Your task to perform on an android device: toggle pop-ups in chrome Image 0: 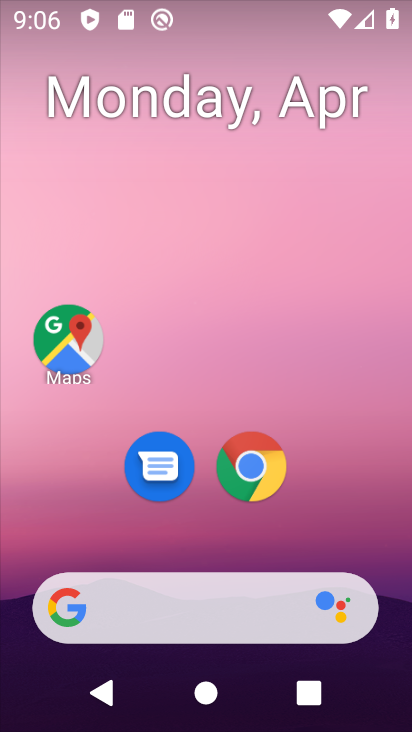
Step 0: click (254, 466)
Your task to perform on an android device: toggle pop-ups in chrome Image 1: 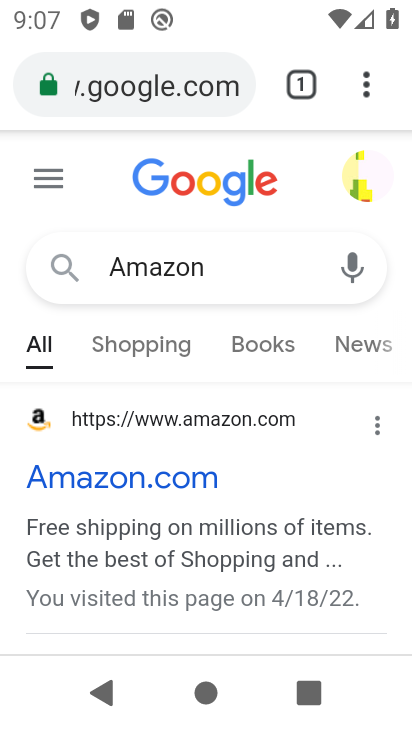
Step 1: click (368, 85)
Your task to perform on an android device: toggle pop-ups in chrome Image 2: 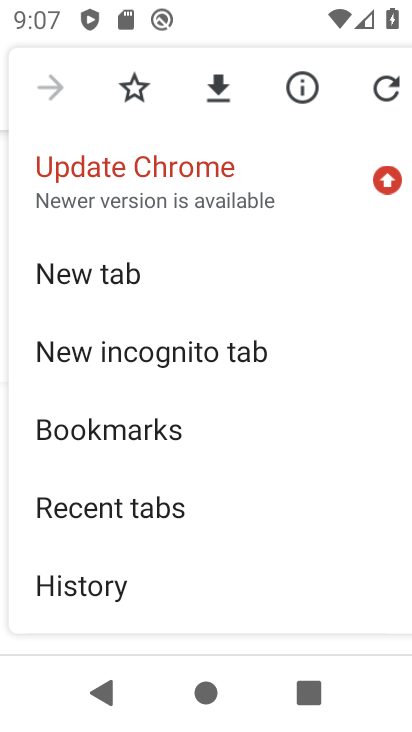
Step 2: drag from (210, 501) to (233, 431)
Your task to perform on an android device: toggle pop-ups in chrome Image 3: 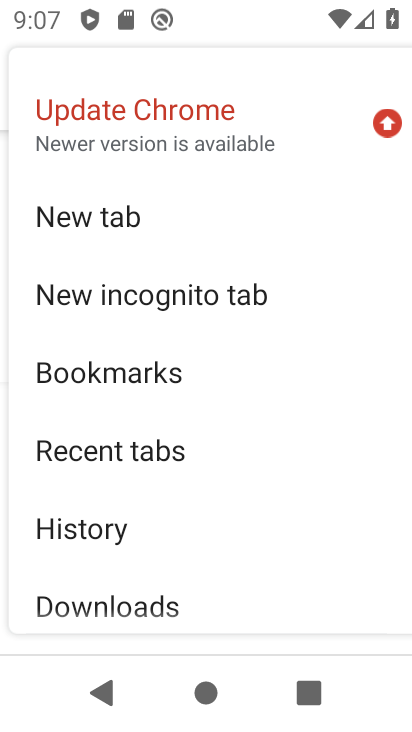
Step 3: drag from (208, 523) to (231, 437)
Your task to perform on an android device: toggle pop-ups in chrome Image 4: 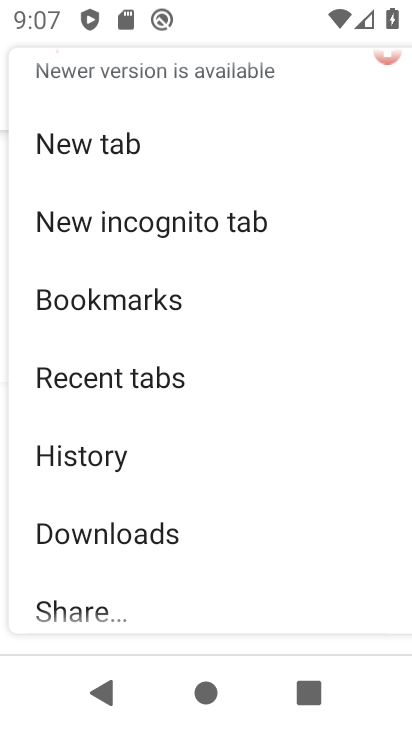
Step 4: drag from (208, 536) to (235, 438)
Your task to perform on an android device: toggle pop-ups in chrome Image 5: 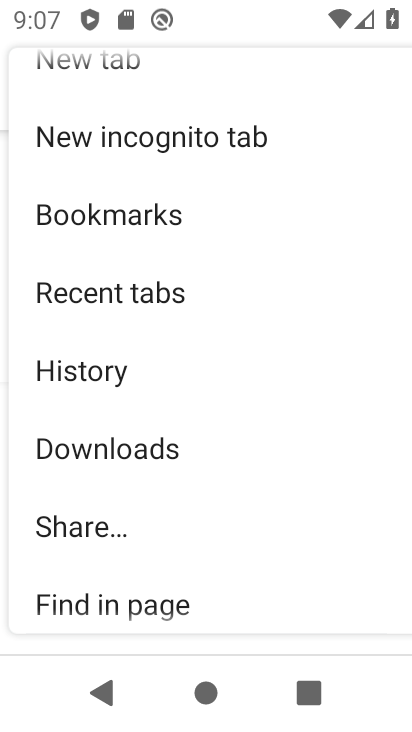
Step 5: drag from (200, 505) to (226, 437)
Your task to perform on an android device: toggle pop-ups in chrome Image 6: 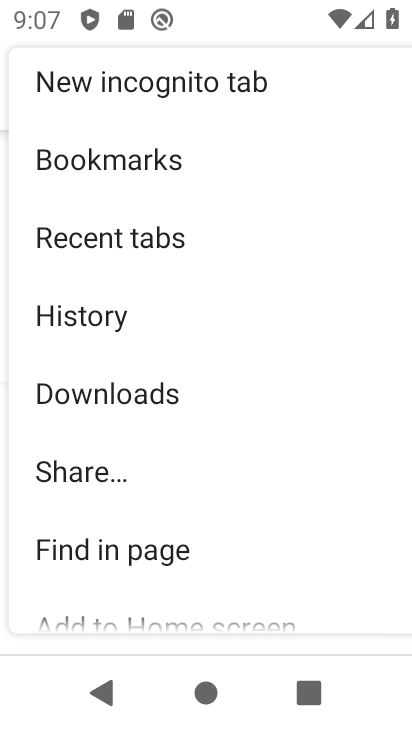
Step 6: drag from (215, 508) to (252, 439)
Your task to perform on an android device: toggle pop-ups in chrome Image 7: 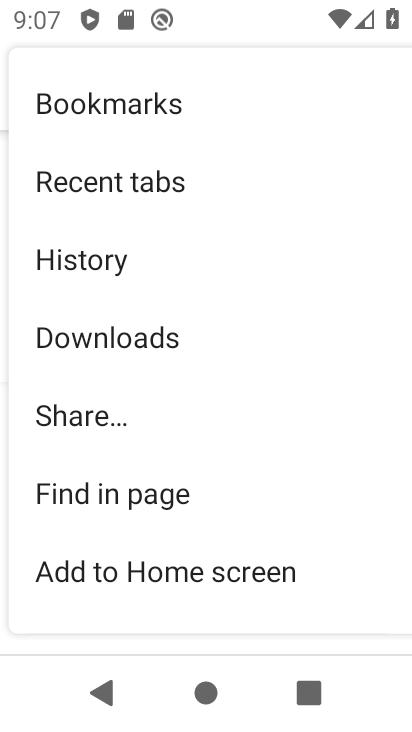
Step 7: drag from (233, 555) to (282, 428)
Your task to perform on an android device: toggle pop-ups in chrome Image 8: 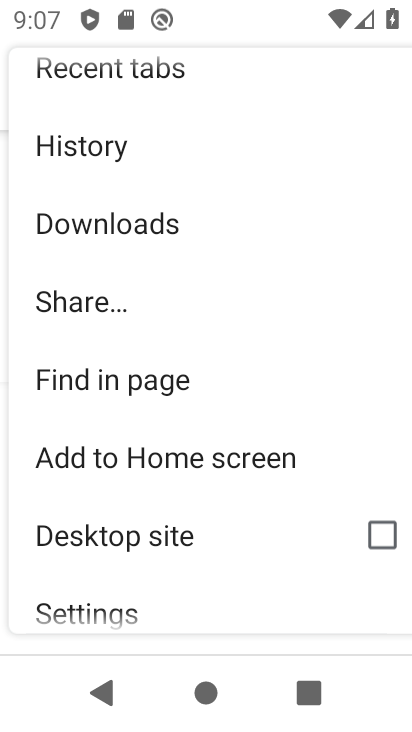
Step 8: drag from (232, 559) to (283, 413)
Your task to perform on an android device: toggle pop-ups in chrome Image 9: 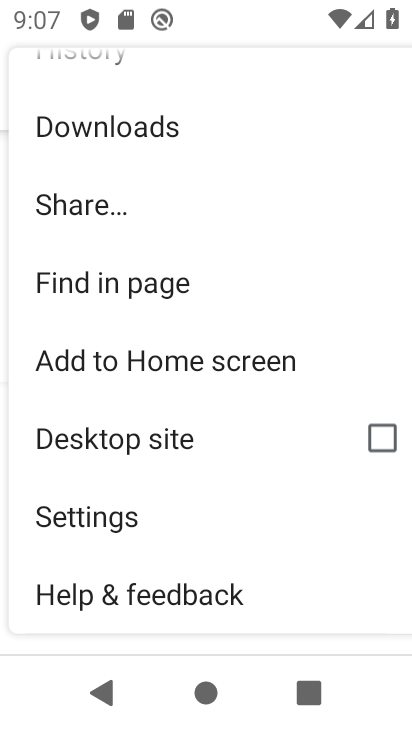
Step 9: click (77, 521)
Your task to perform on an android device: toggle pop-ups in chrome Image 10: 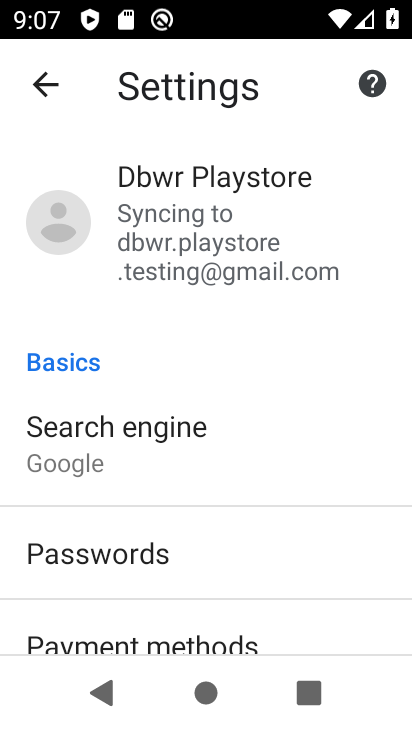
Step 10: drag from (136, 596) to (220, 411)
Your task to perform on an android device: toggle pop-ups in chrome Image 11: 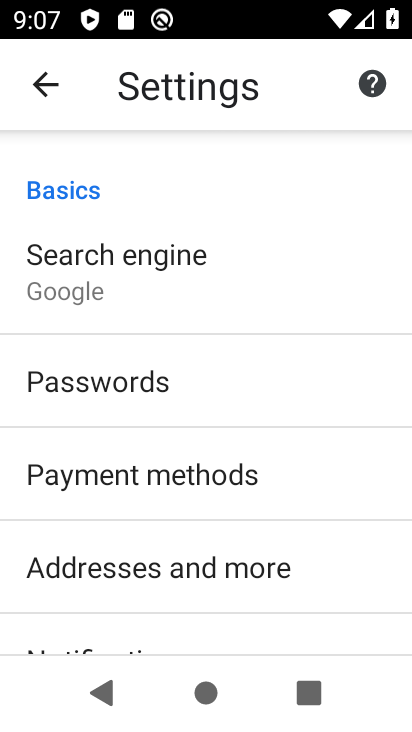
Step 11: drag from (177, 583) to (225, 471)
Your task to perform on an android device: toggle pop-ups in chrome Image 12: 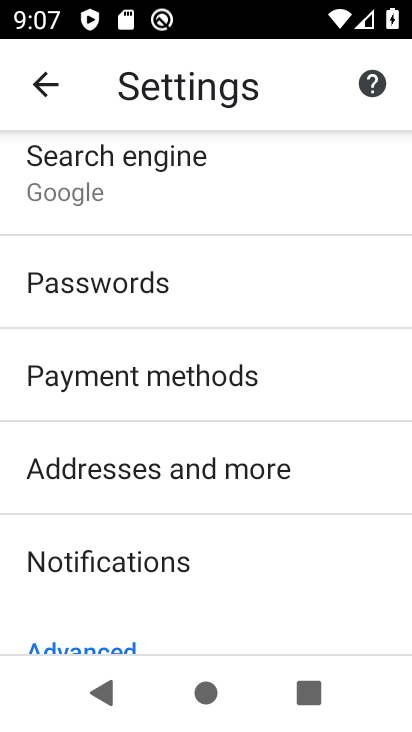
Step 12: drag from (164, 599) to (234, 483)
Your task to perform on an android device: toggle pop-ups in chrome Image 13: 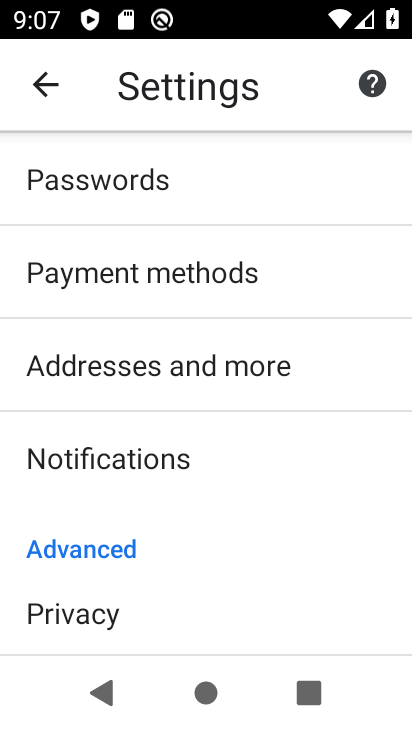
Step 13: drag from (179, 604) to (243, 469)
Your task to perform on an android device: toggle pop-ups in chrome Image 14: 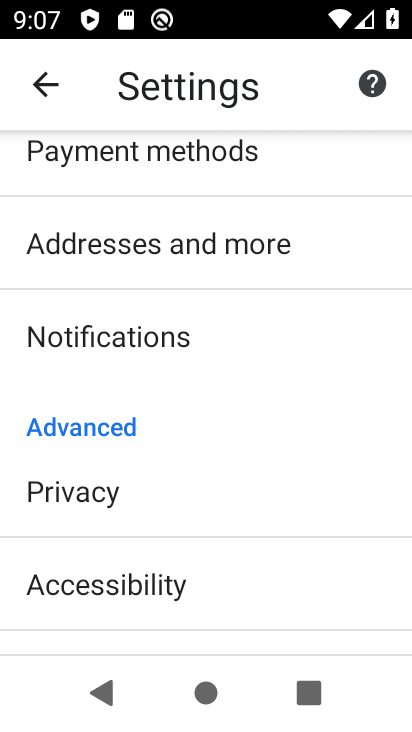
Step 14: drag from (166, 581) to (242, 440)
Your task to perform on an android device: toggle pop-ups in chrome Image 15: 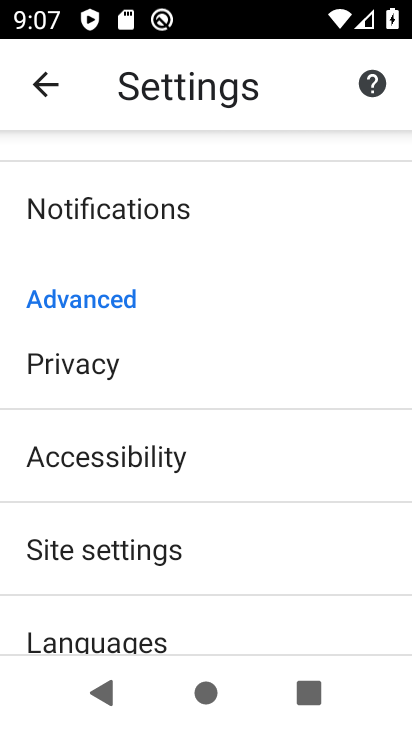
Step 15: drag from (184, 574) to (235, 459)
Your task to perform on an android device: toggle pop-ups in chrome Image 16: 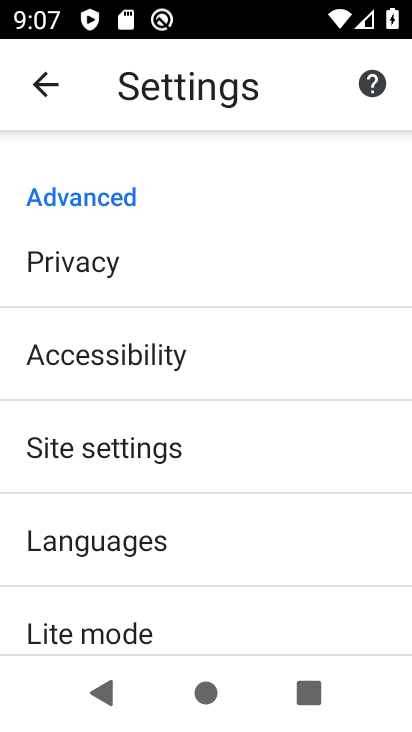
Step 16: click (132, 447)
Your task to perform on an android device: toggle pop-ups in chrome Image 17: 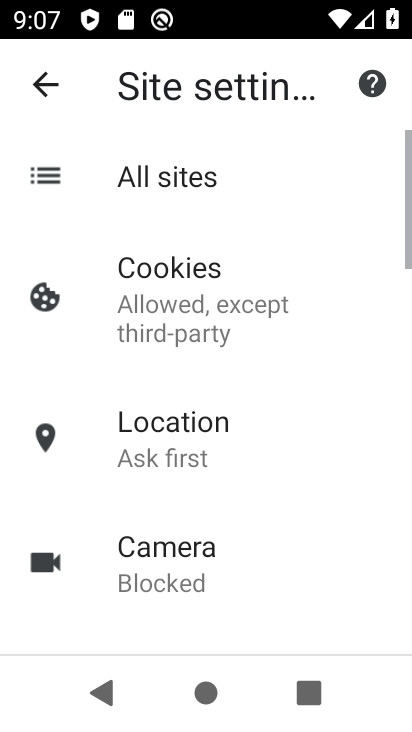
Step 17: drag from (231, 582) to (279, 455)
Your task to perform on an android device: toggle pop-ups in chrome Image 18: 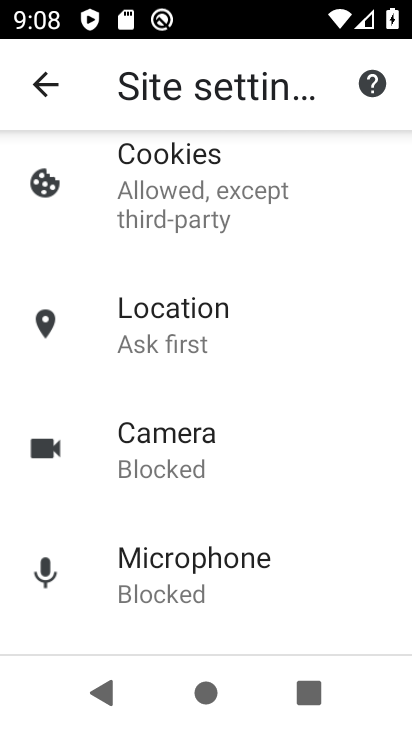
Step 18: drag from (247, 544) to (272, 450)
Your task to perform on an android device: toggle pop-ups in chrome Image 19: 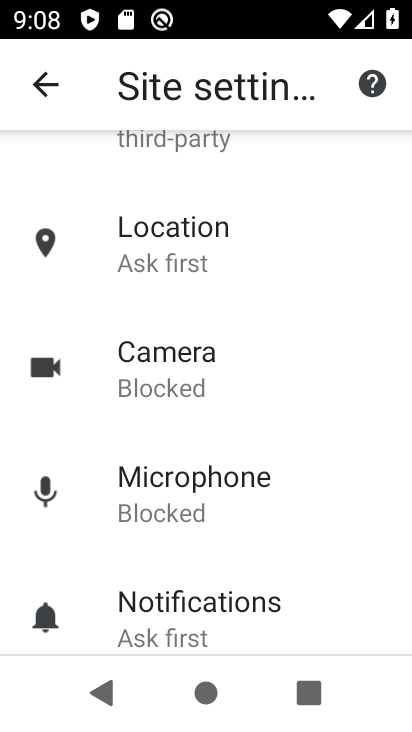
Step 19: drag from (232, 537) to (293, 429)
Your task to perform on an android device: toggle pop-ups in chrome Image 20: 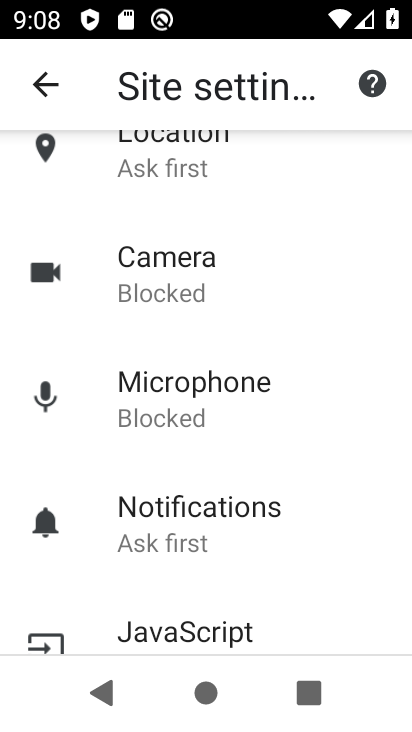
Step 20: drag from (233, 555) to (285, 467)
Your task to perform on an android device: toggle pop-ups in chrome Image 21: 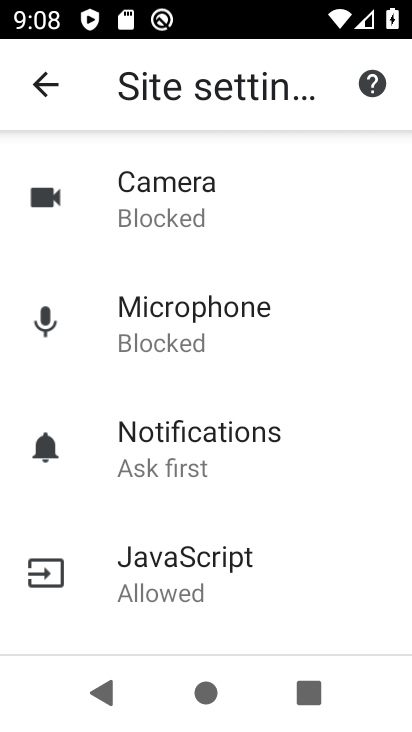
Step 21: drag from (237, 558) to (287, 475)
Your task to perform on an android device: toggle pop-ups in chrome Image 22: 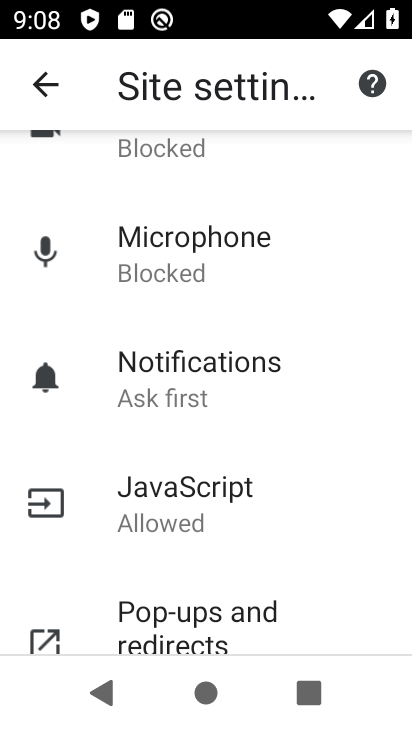
Step 22: drag from (244, 544) to (305, 456)
Your task to perform on an android device: toggle pop-ups in chrome Image 23: 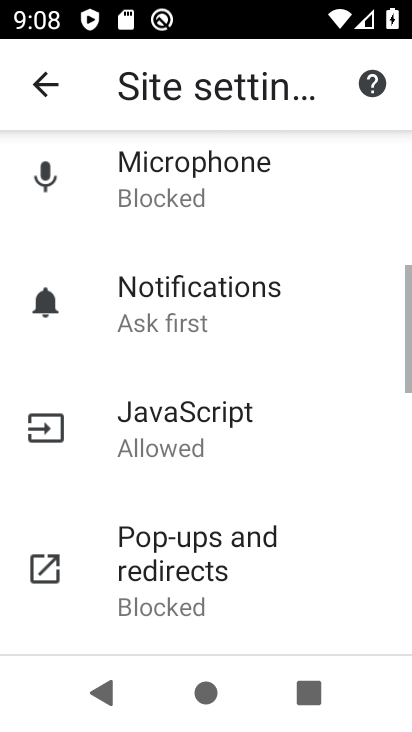
Step 23: click (227, 548)
Your task to perform on an android device: toggle pop-ups in chrome Image 24: 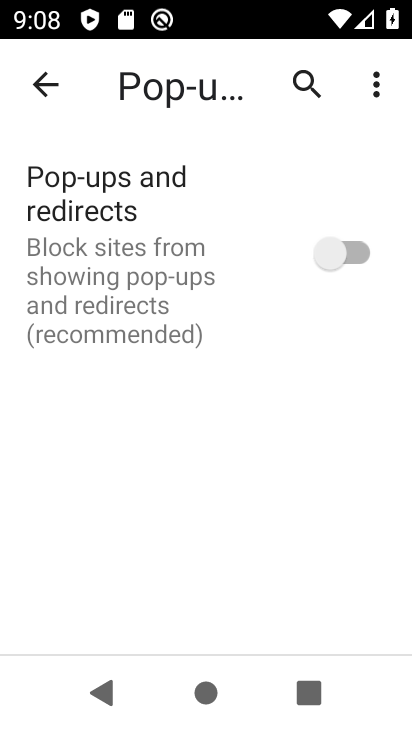
Step 24: click (352, 257)
Your task to perform on an android device: toggle pop-ups in chrome Image 25: 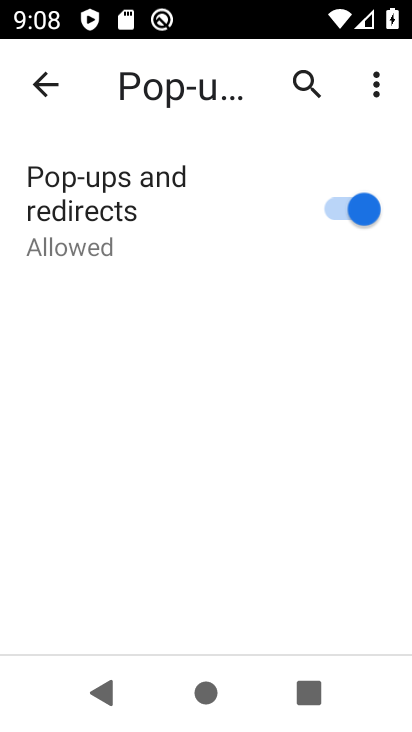
Step 25: task complete